Your task to perform on an android device: Show me popular videos on Youtube Image 0: 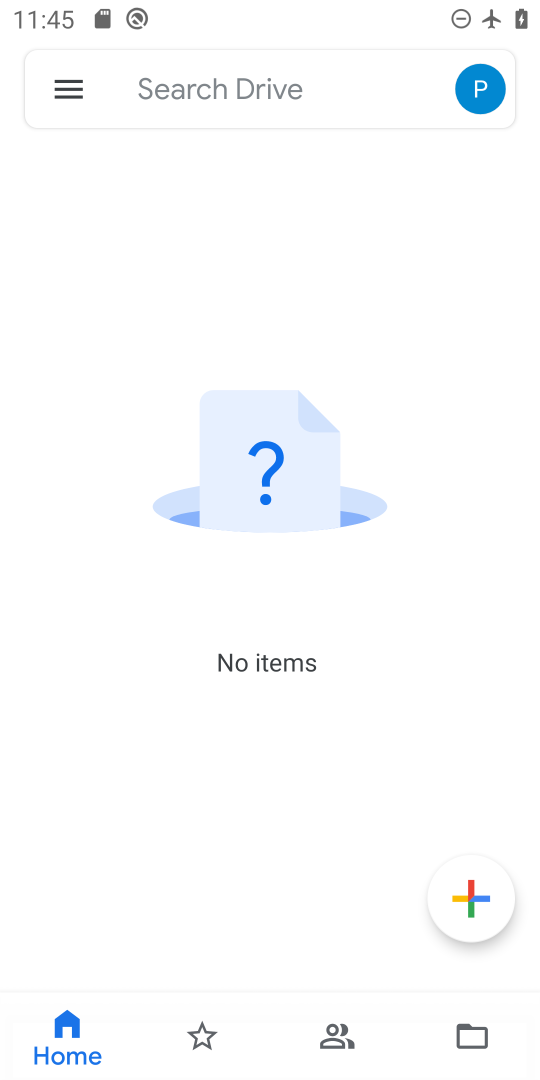
Step 0: press home button
Your task to perform on an android device: Show me popular videos on Youtube Image 1: 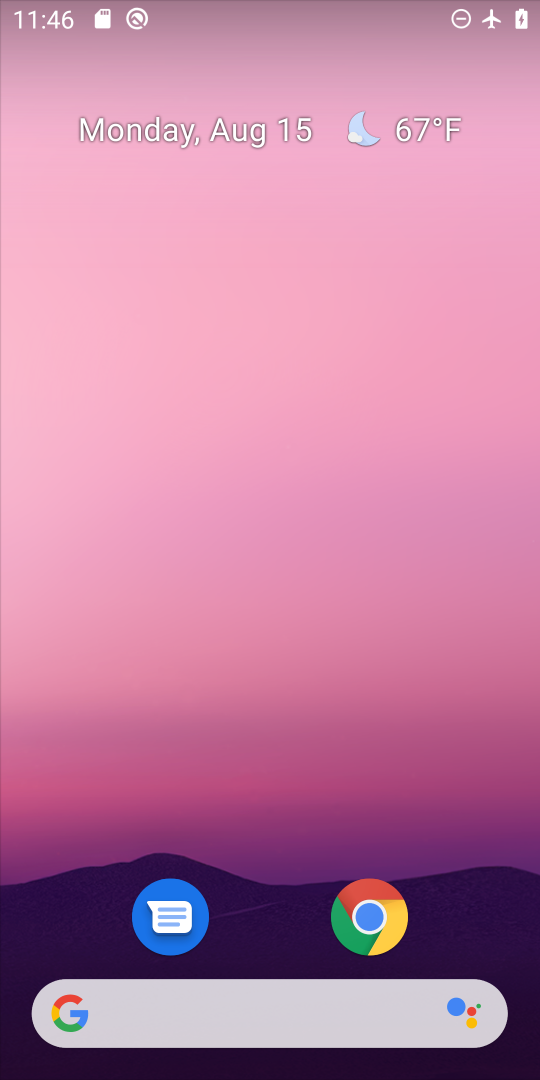
Step 1: drag from (301, 835) to (433, 2)
Your task to perform on an android device: Show me popular videos on Youtube Image 2: 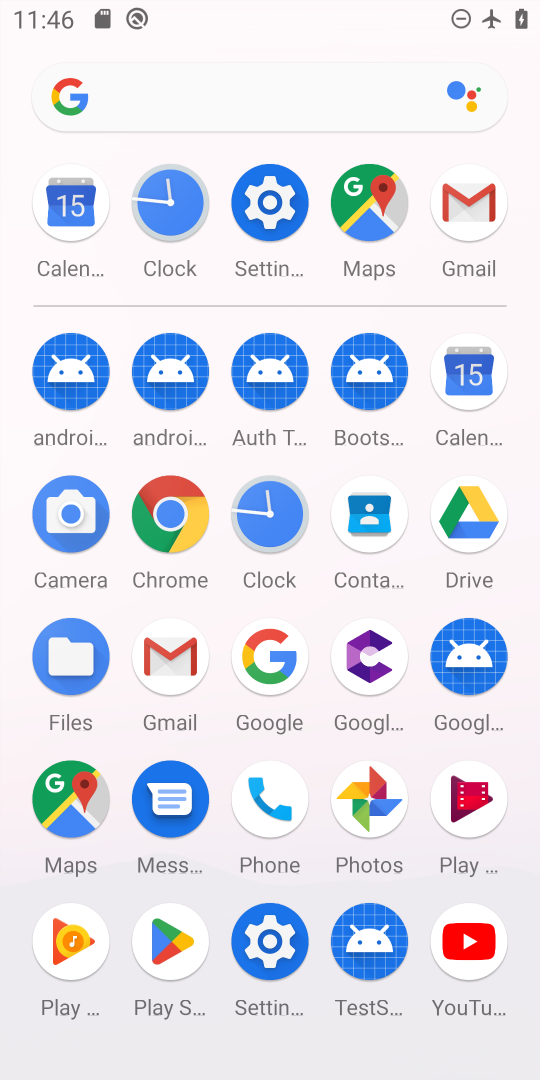
Step 2: click (474, 938)
Your task to perform on an android device: Show me popular videos on Youtube Image 3: 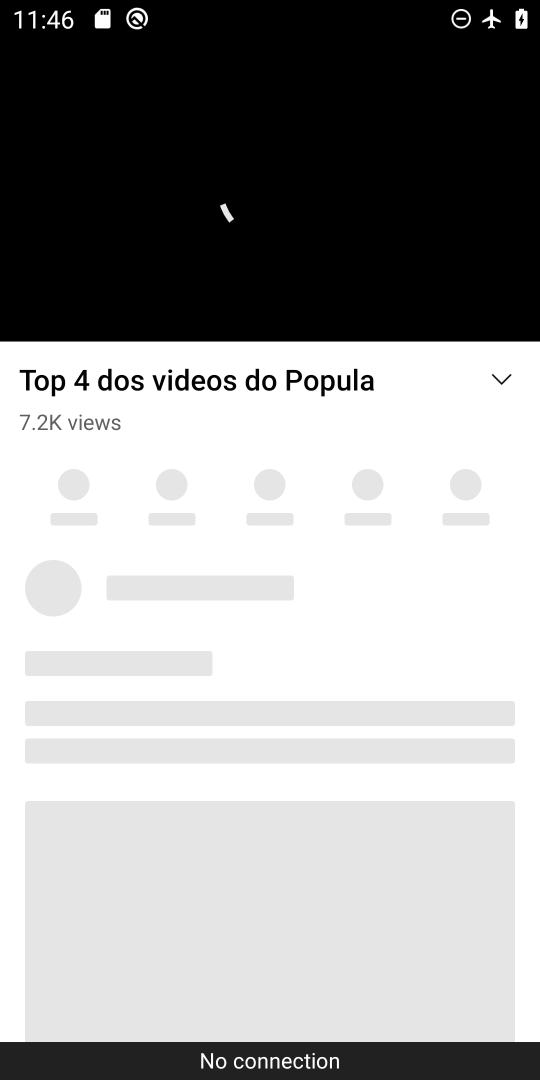
Step 3: press home button
Your task to perform on an android device: Show me popular videos on Youtube Image 4: 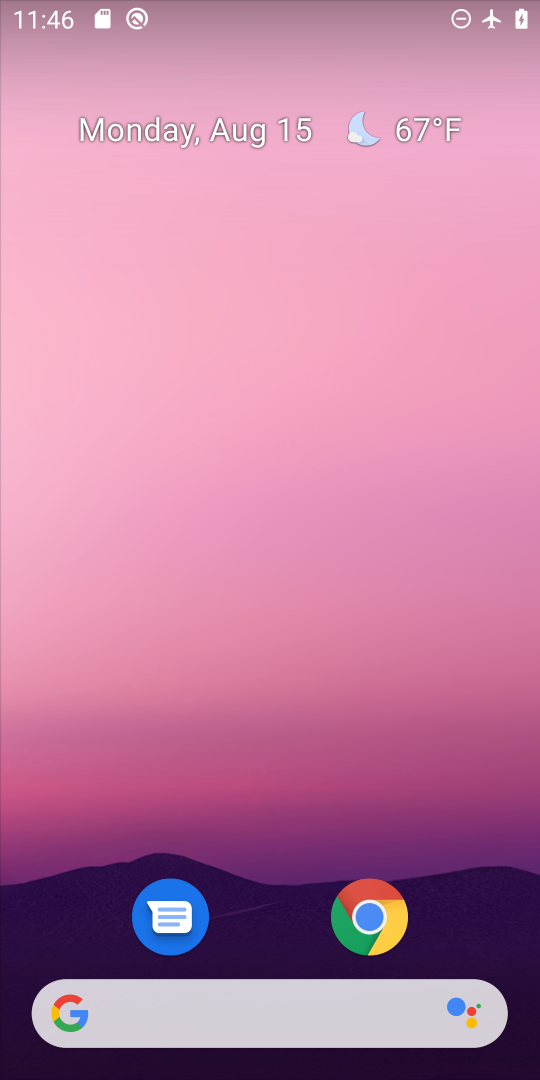
Step 4: drag from (303, 910) to (287, 40)
Your task to perform on an android device: Show me popular videos on Youtube Image 5: 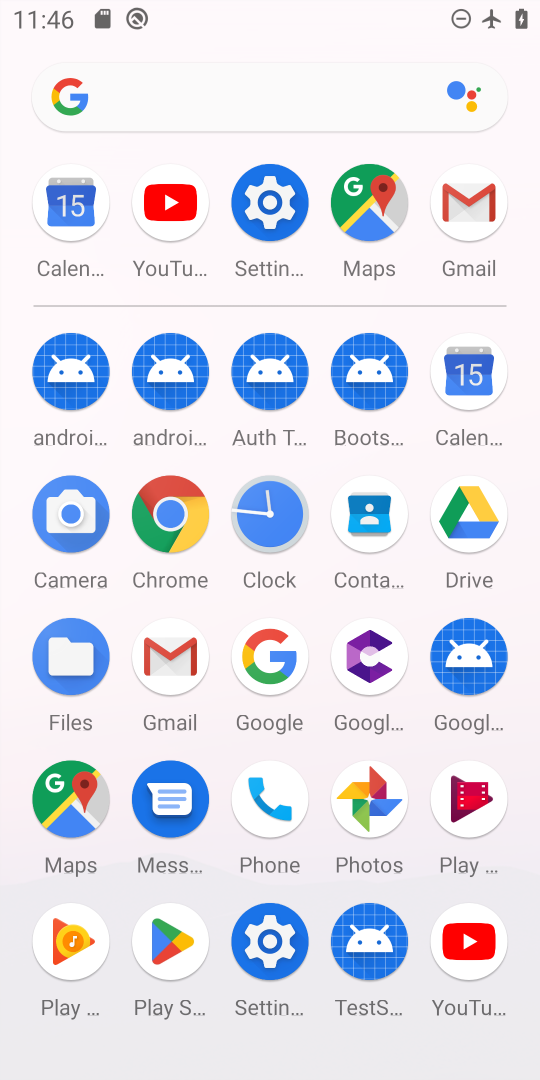
Step 5: click (178, 256)
Your task to perform on an android device: Show me popular videos on Youtube Image 6: 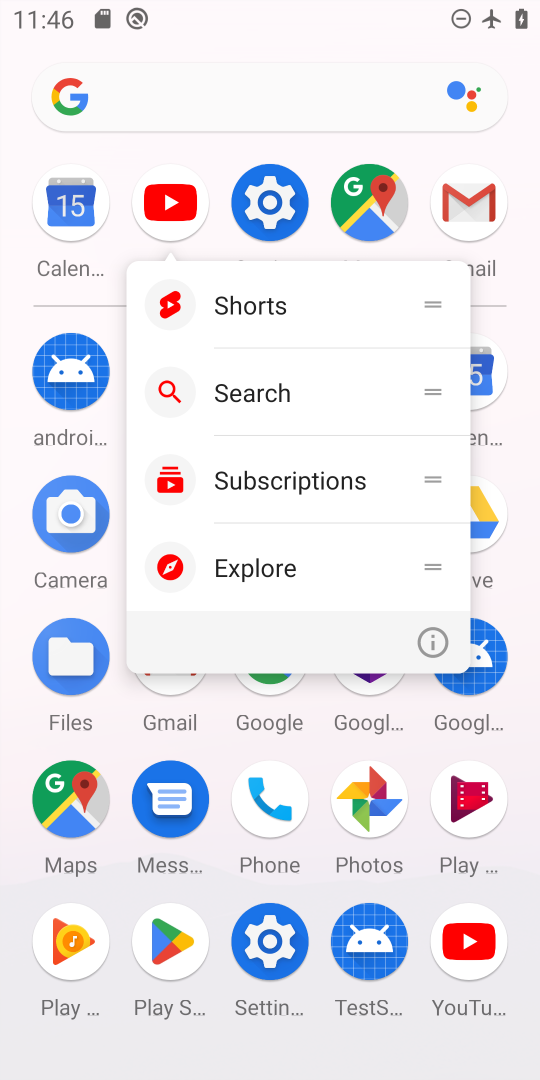
Step 6: click (173, 213)
Your task to perform on an android device: Show me popular videos on Youtube Image 7: 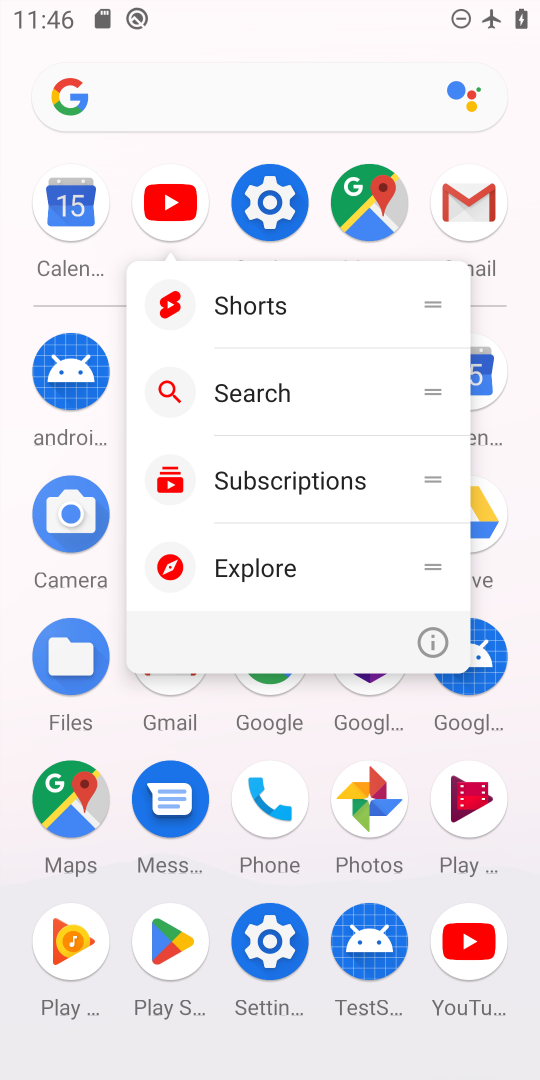
Step 7: click (173, 192)
Your task to perform on an android device: Show me popular videos on Youtube Image 8: 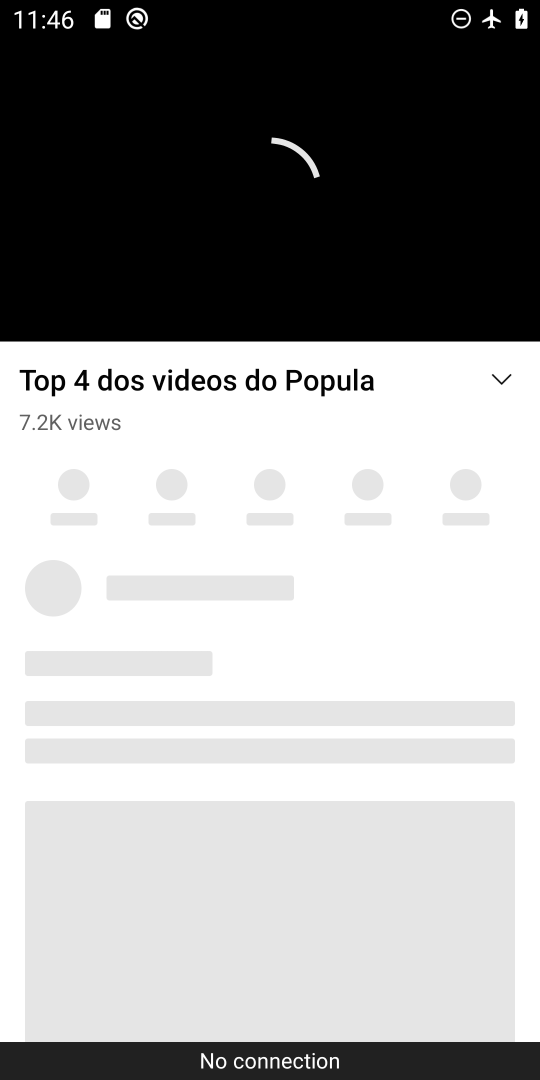
Step 8: press back button
Your task to perform on an android device: Show me popular videos on Youtube Image 9: 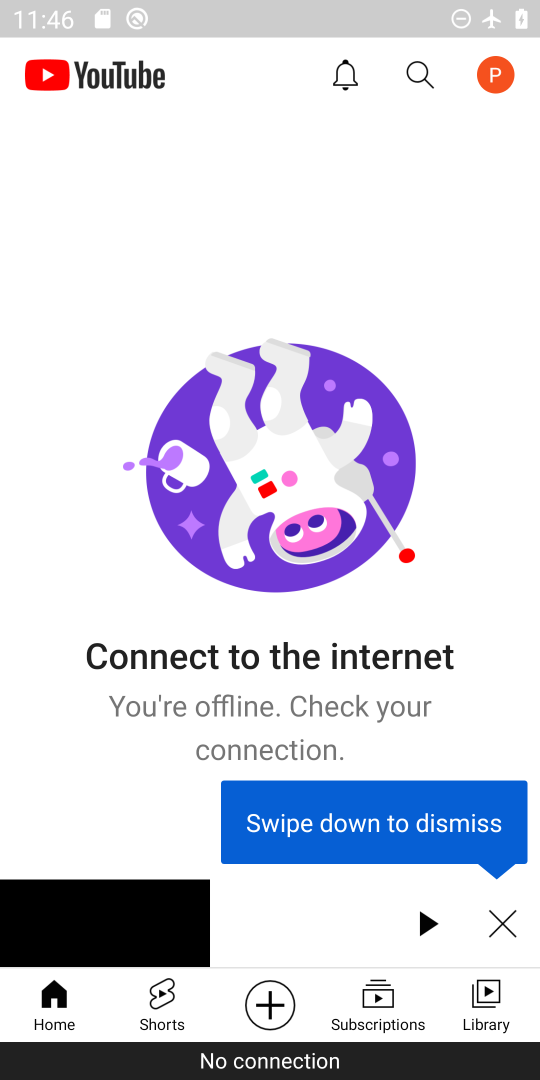
Step 9: click (413, 64)
Your task to perform on an android device: Show me popular videos on Youtube Image 10: 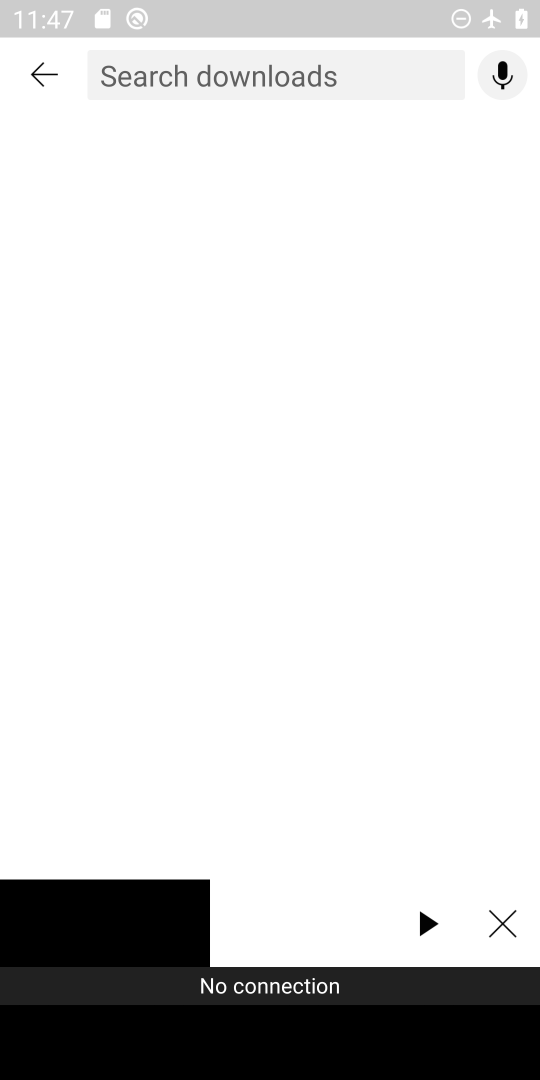
Step 10: type "popular videos"
Your task to perform on an android device: Show me popular videos on Youtube Image 11: 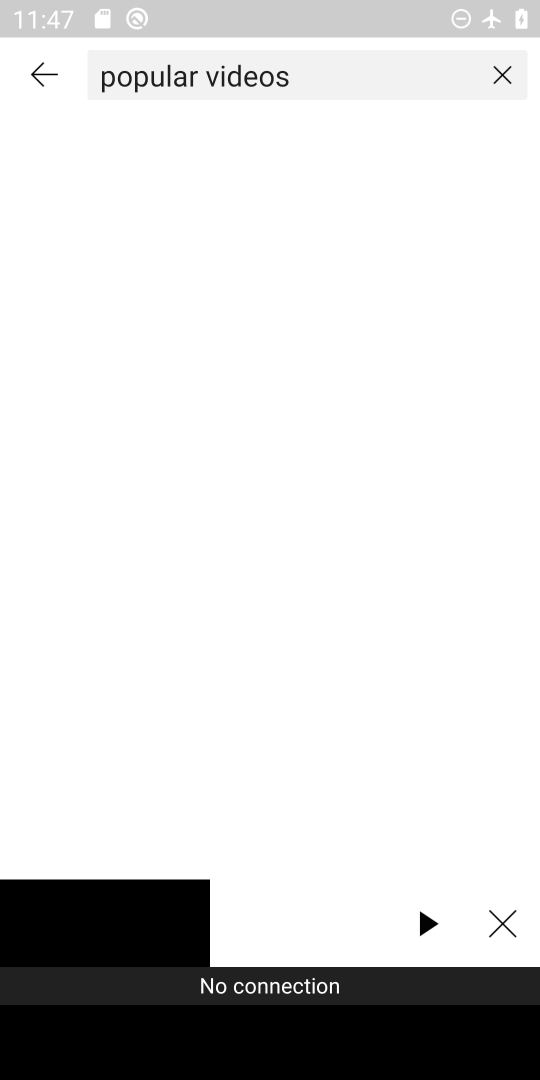
Step 11: task complete